Your task to perform on an android device: Open Yahoo.com Image 0: 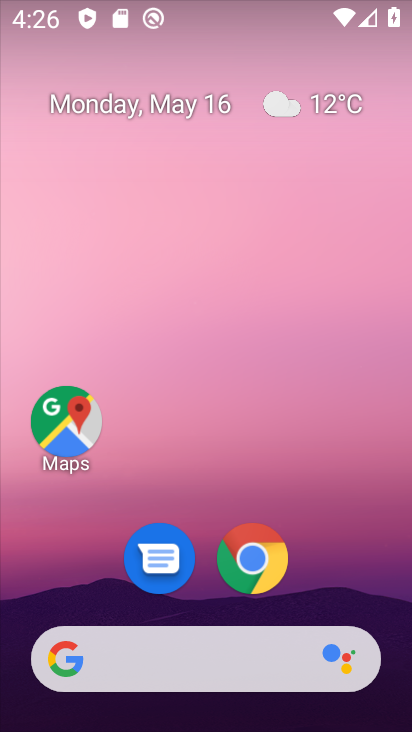
Step 0: click (269, 570)
Your task to perform on an android device: Open Yahoo.com Image 1: 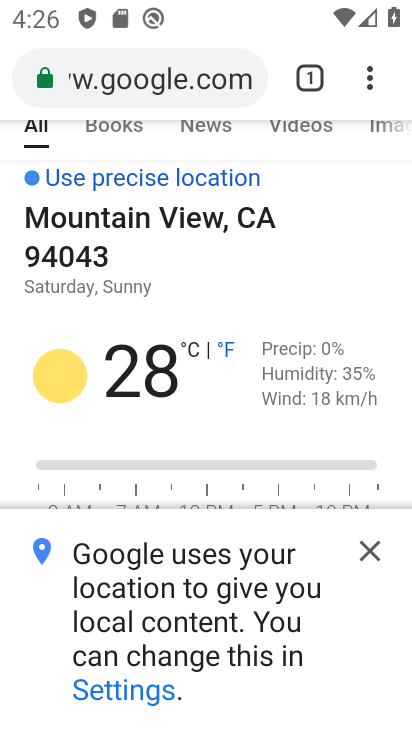
Step 1: click (196, 78)
Your task to perform on an android device: Open Yahoo.com Image 2: 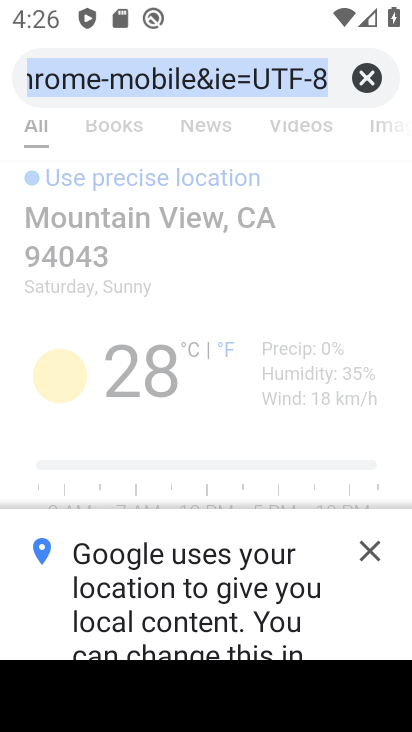
Step 2: type "yahoo.com"
Your task to perform on an android device: Open Yahoo.com Image 3: 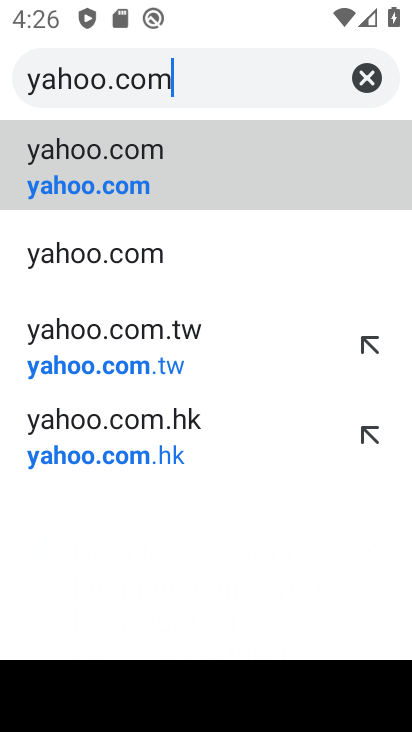
Step 3: click (143, 161)
Your task to perform on an android device: Open Yahoo.com Image 4: 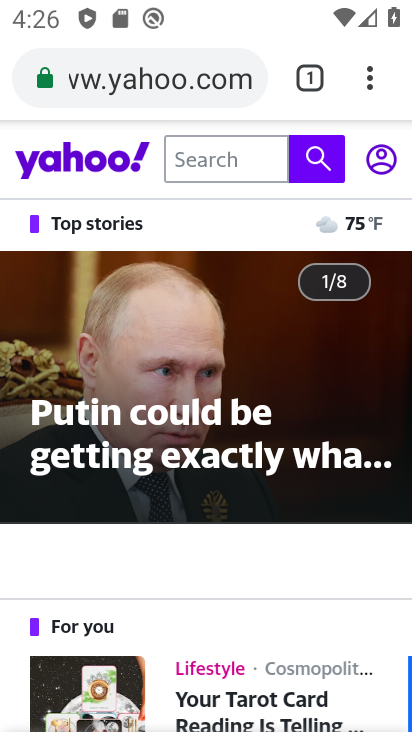
Step 4: task complete